Your task to perform on an android device: Play the last video I watched on Youtube Image 0: 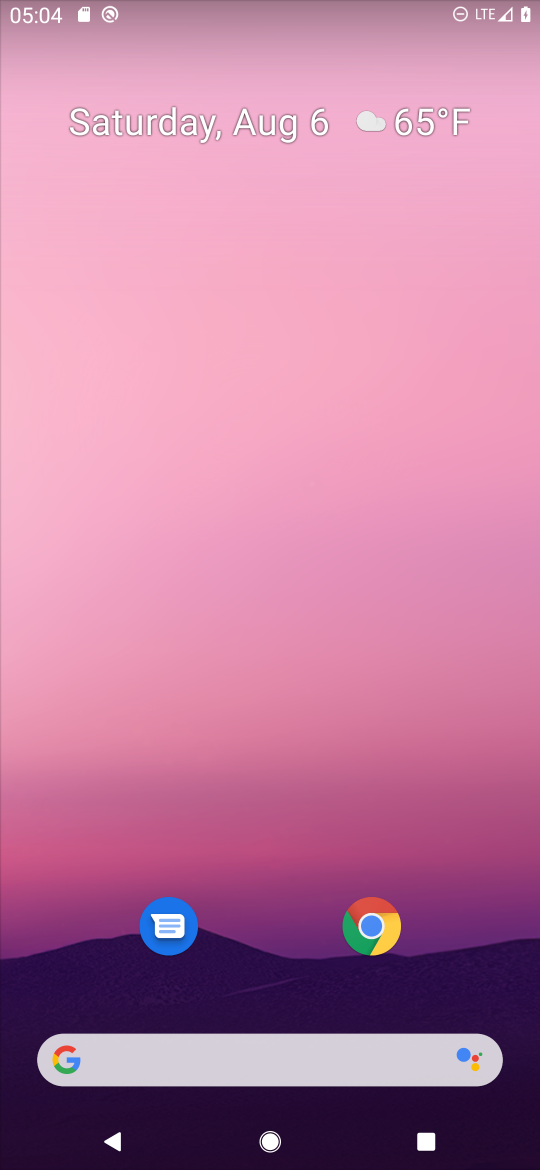
Step 0: drag from (268, 946) to (277, 260)
Your task to perform on an android device: Play the last video I watched on Youtube Image 1: 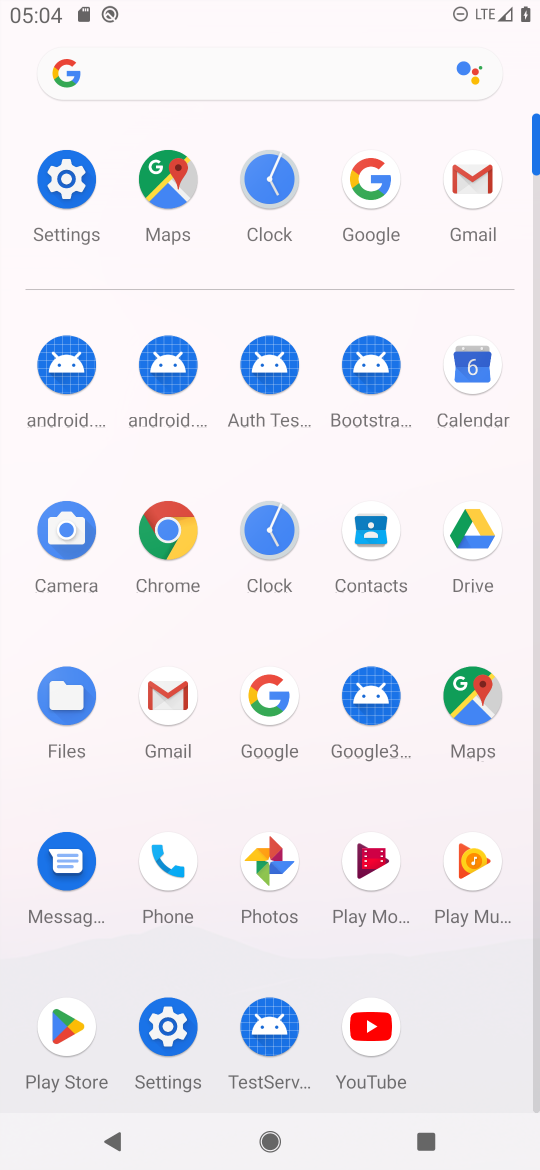
Step 1: click (367, 1006)
Your task to perform on an android device: Play the last video I watched on Youtube Image 2: 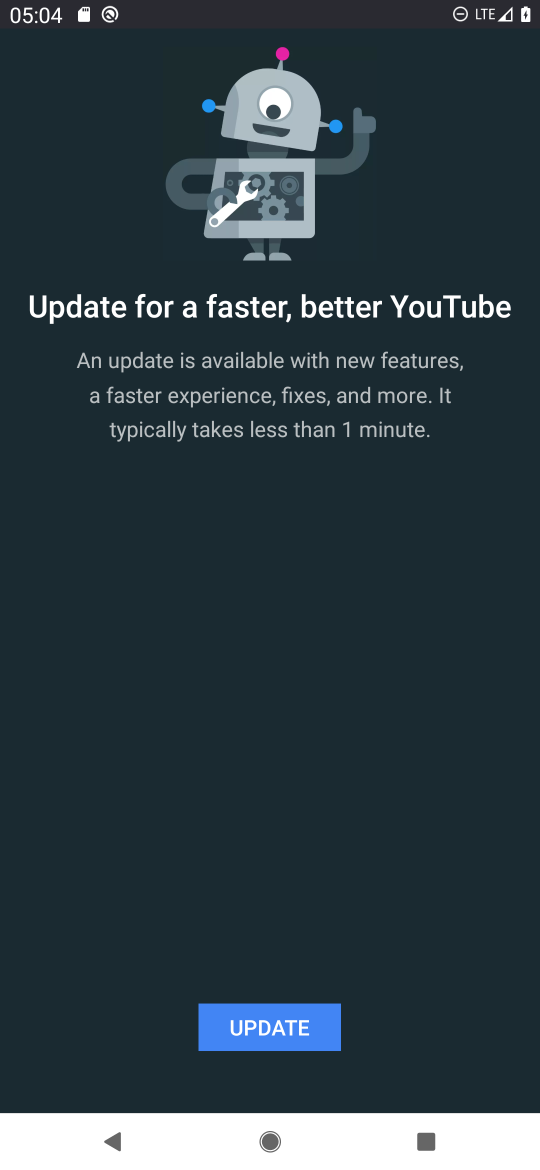
Step 2: click (276, 1014)
Your task to perform on an android device: Play the last video I watched on Youtube Image 3: 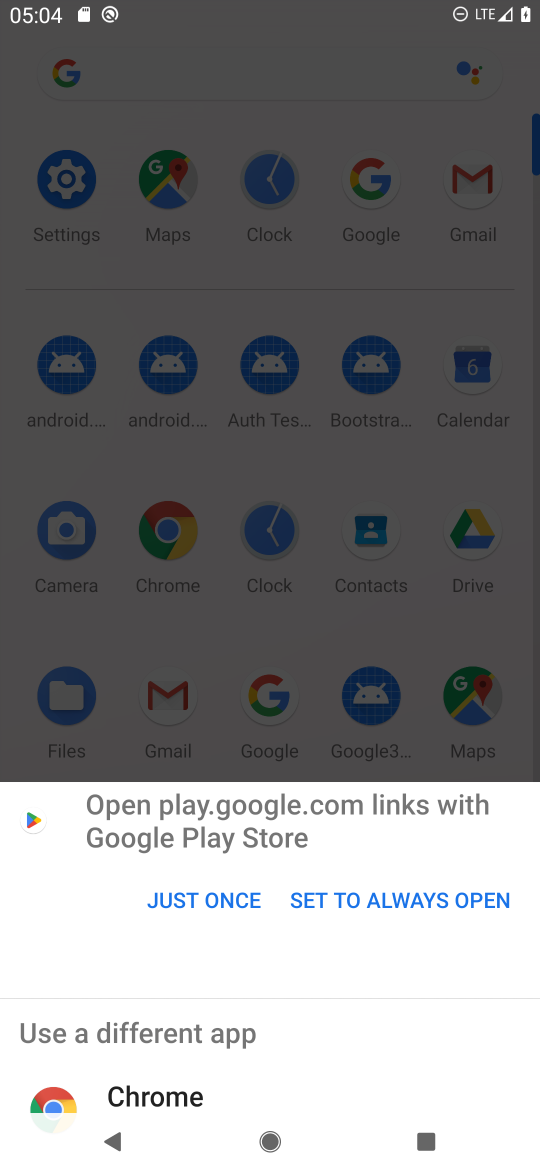
Step 3: click (190, 903)
Your task to perform on an android device: Play the last video I watched on Youtube Image 4: 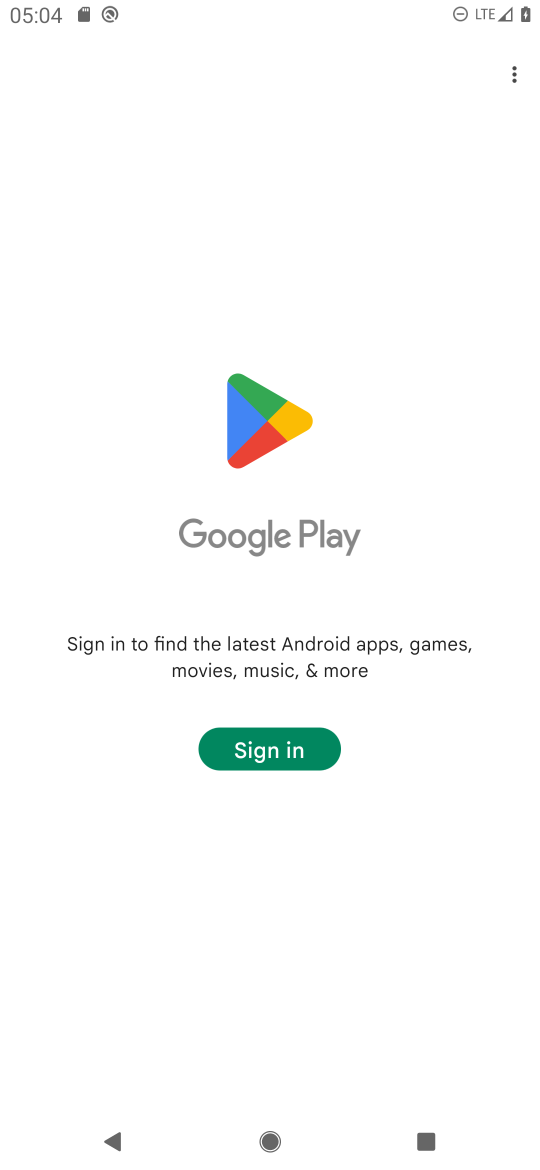
Step 4: task complete